Your task to perform on an android device: open app "LiveIn - Share Your Moment" (install if not already installed) Image 0: 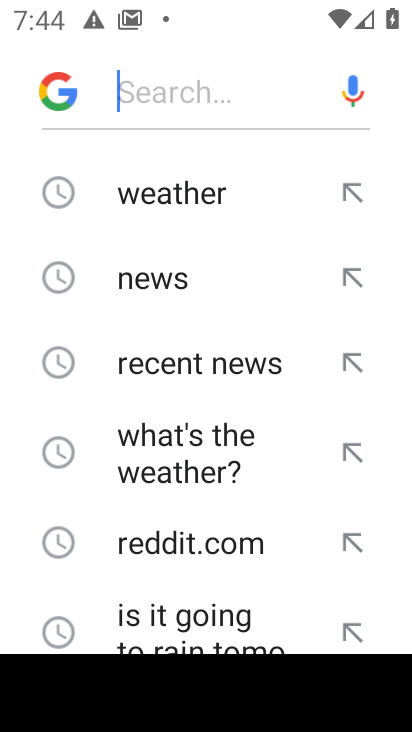
Step 0: press home button
Your task to perform on an android device: open app "LiveIn - Share Your Moment" (install if not already installed) Image 1: 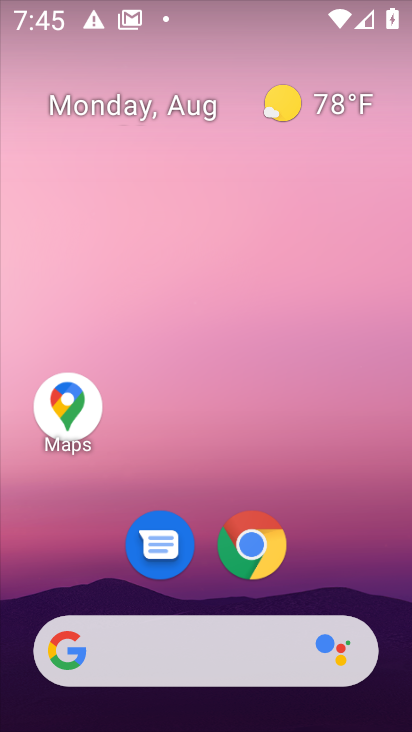
Step 1: drag from (352, 526) to (359, 102)
Your task to perform on an android device: open app "LiveIn - Share Your Moment" (install if not already installed) Image 2: 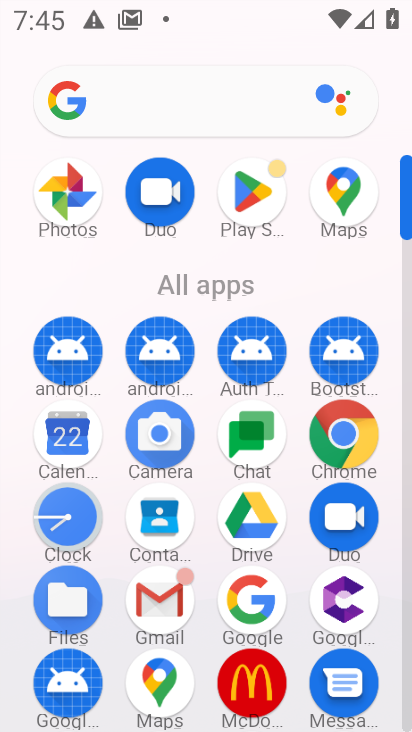
Step 2: click (255, 196)
Your task to perform on an android device: open app "LiveIn - Share Your Moment" (install if not already installed) Image 3: 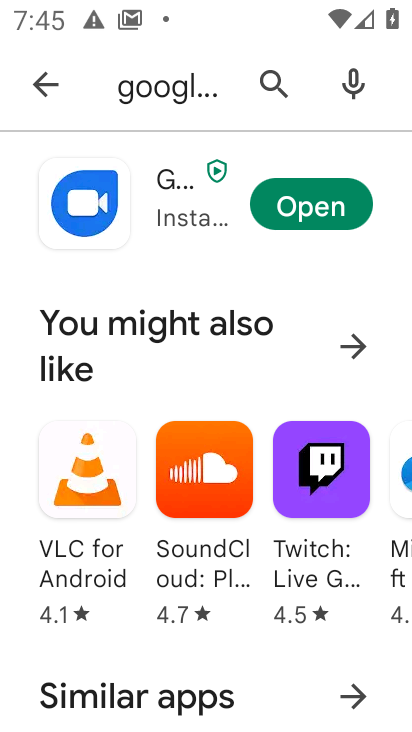
Step 3: press back button
Your task to perform on an android device: open app "LiveIn - Share Your Moment" (install if not already installed) Image 4: 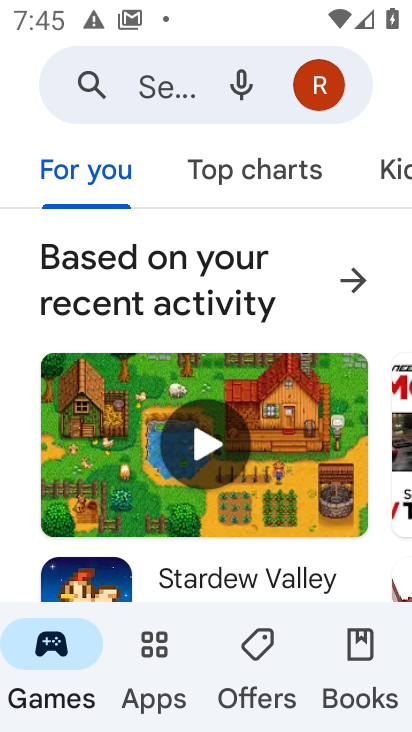
Step 4: click (165, 87)
Your task to perform on an android device: open app "LiveIn - Share Your Moment" (install if not already installed) Image 5: 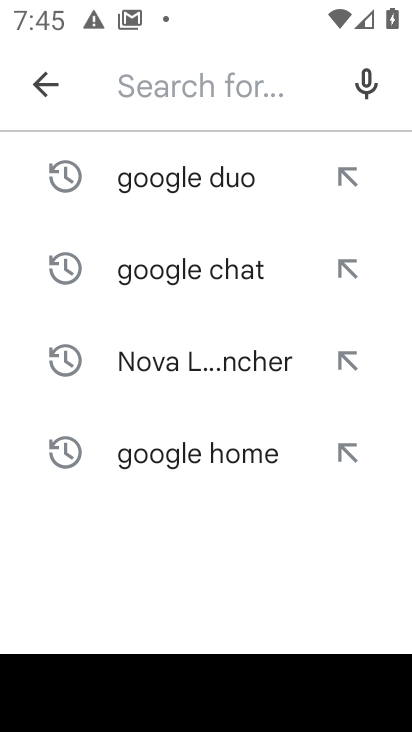
Step 5: type "LiveIn - Share Your Moment"
Your task to perform on an android device: open app "LiveIn - Share Your Moment" (install if not already installed) Image 6: 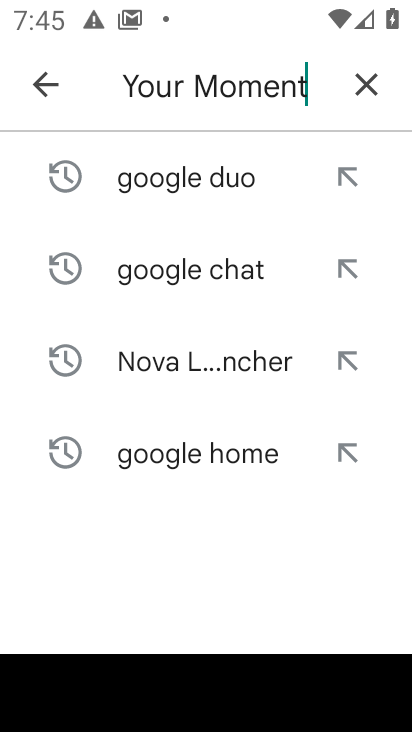
Step 6: press enter
Your task to perform on an android device: open app "LiveIn - Share Your Moment" (install if not already installed) Image 7: 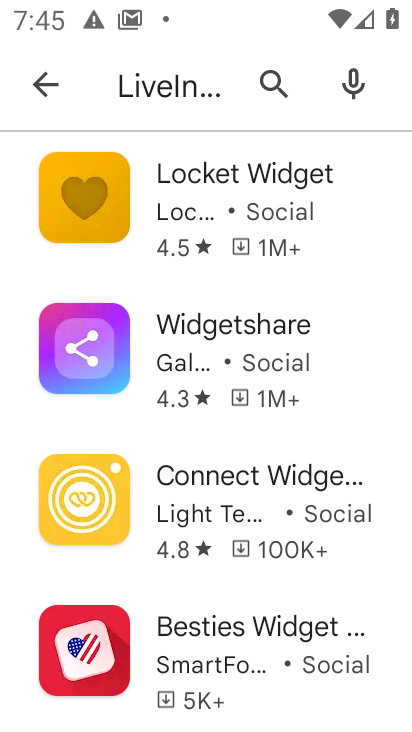
Step 7: task complete